Your task to perform on an android device: Go to Google maps Image 0: 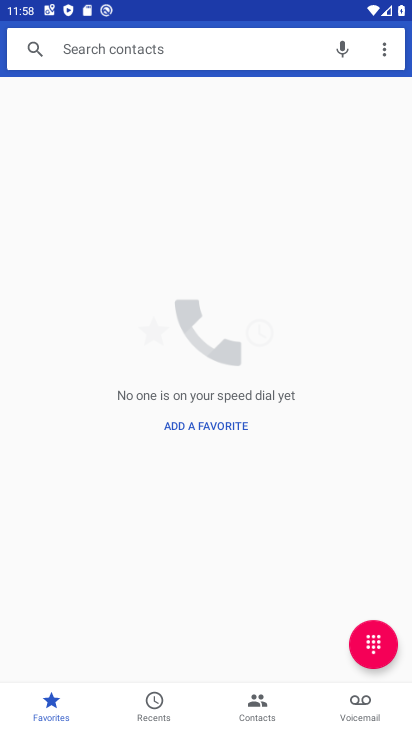
Step 0: press home button
Your task to perform on an android device: Go to Google maps Image 1: 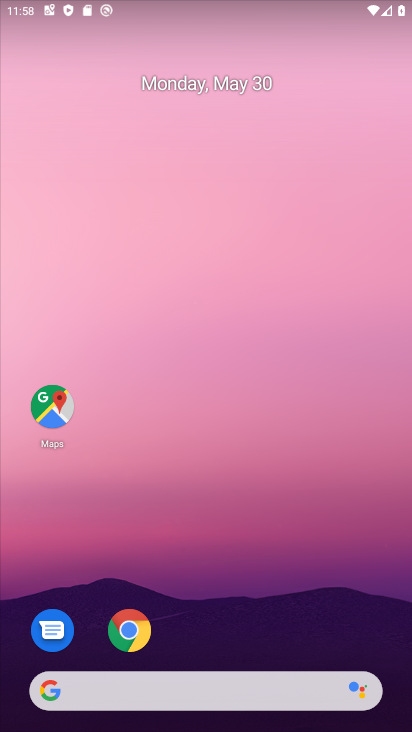
Step 1: click (47, 409)
Your task to perform on an android device: Go to Google maps Image 2: 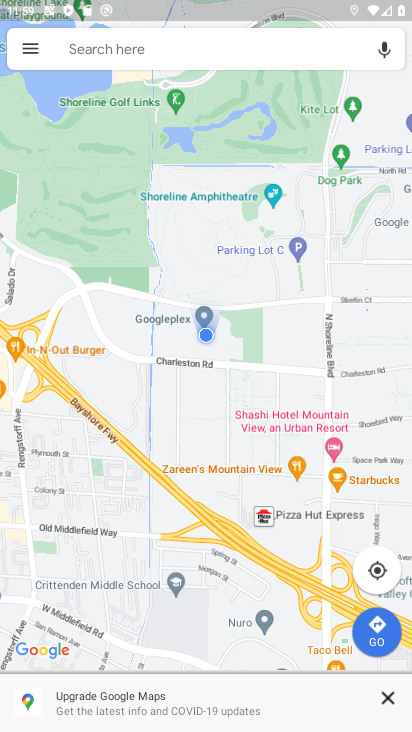
Step 2: task complete